Your task to perform on an android device: Open Amazon Image 0: 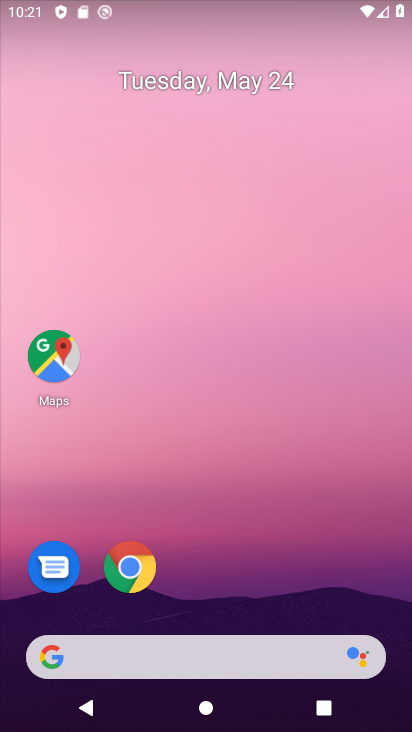
Step 0: drag from (267, 661) to (320, 41)
Your task to perform on an android device: Open Amazon Image 1: 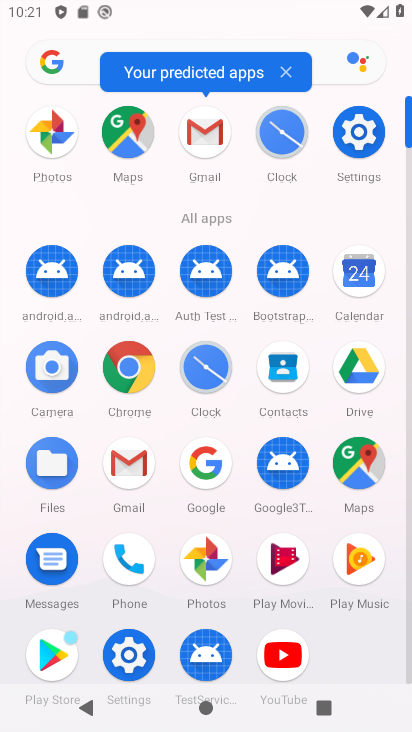
Step 1: click (131, 380)
Your task to perform on an android device: Open Amazon Image 2: 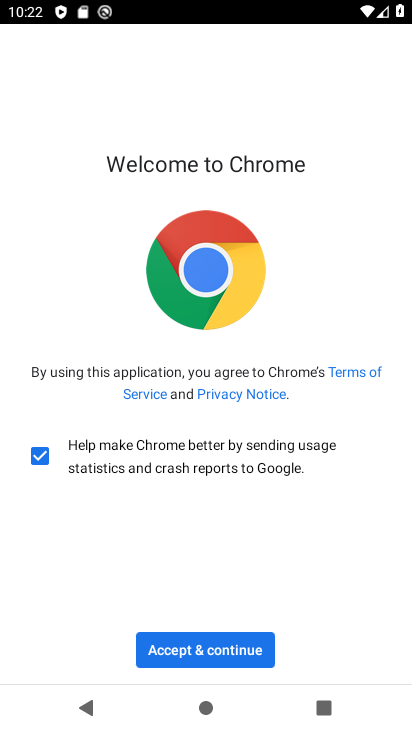
Step 2: click (157, 645)
Your task to perform on an android device: Open Amazon Image 3: 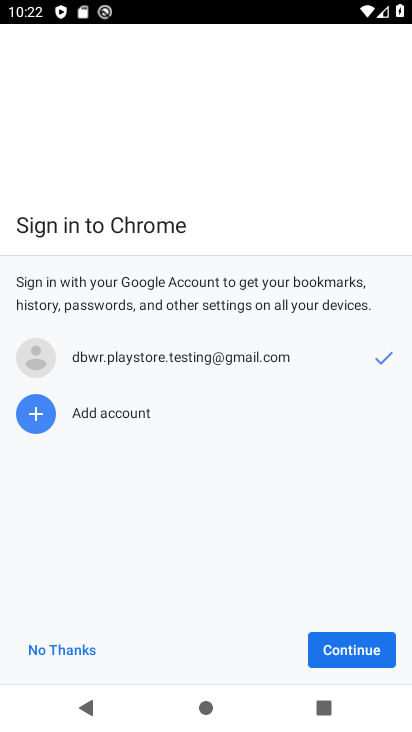
Step 3: click (341, 664)
Your task to perform on an android device: Open Amazon Image 4: 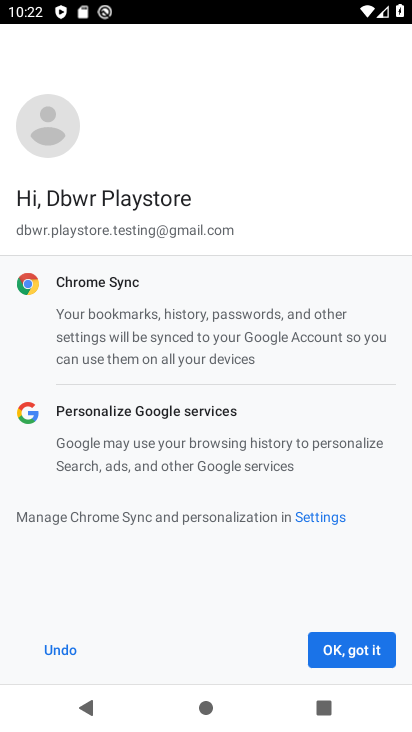
Step 4: click (362, 637)
Your task to perform on an android device: Open Amazon Image 5: 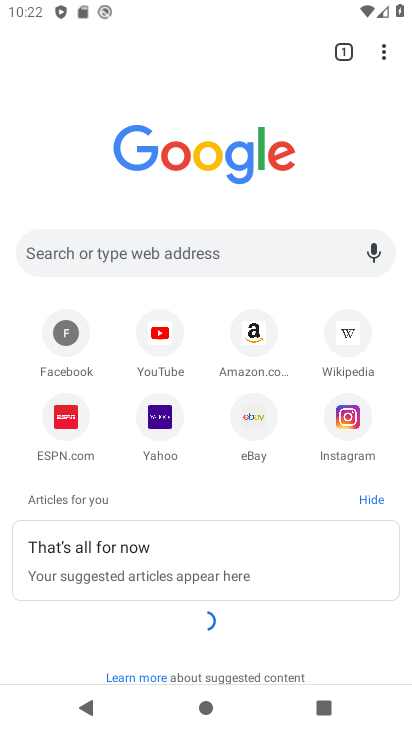
Step 5: click (247, 338)
Your task to perform on an android device: Open Amazon Image 6: 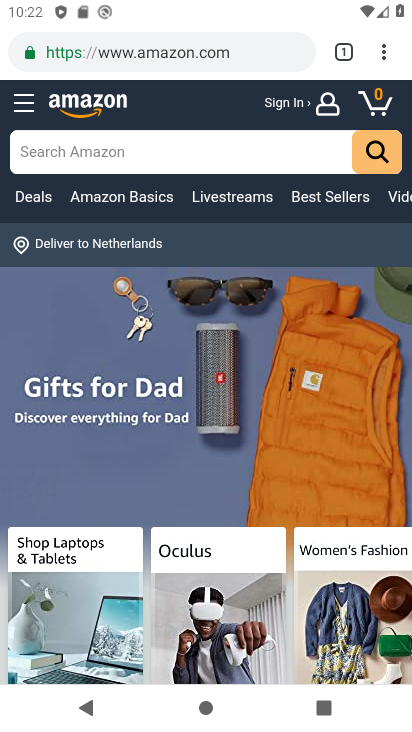
Step 6: task complete